Your task to perform on an android device: What time is it in London? Image 0: 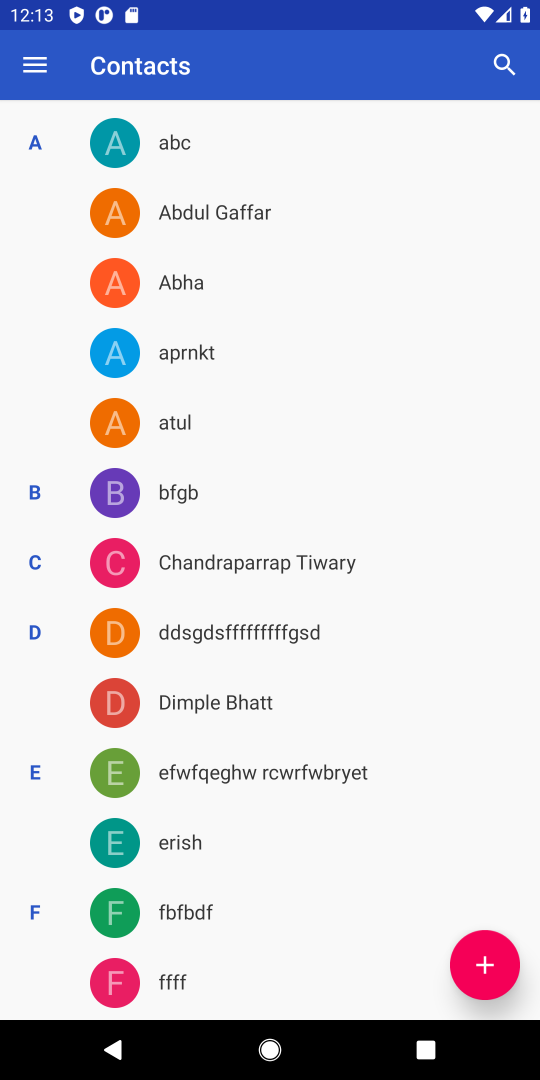
Step 0: press home button
Your task to perform on an android device: What time is it in London? Image 1: 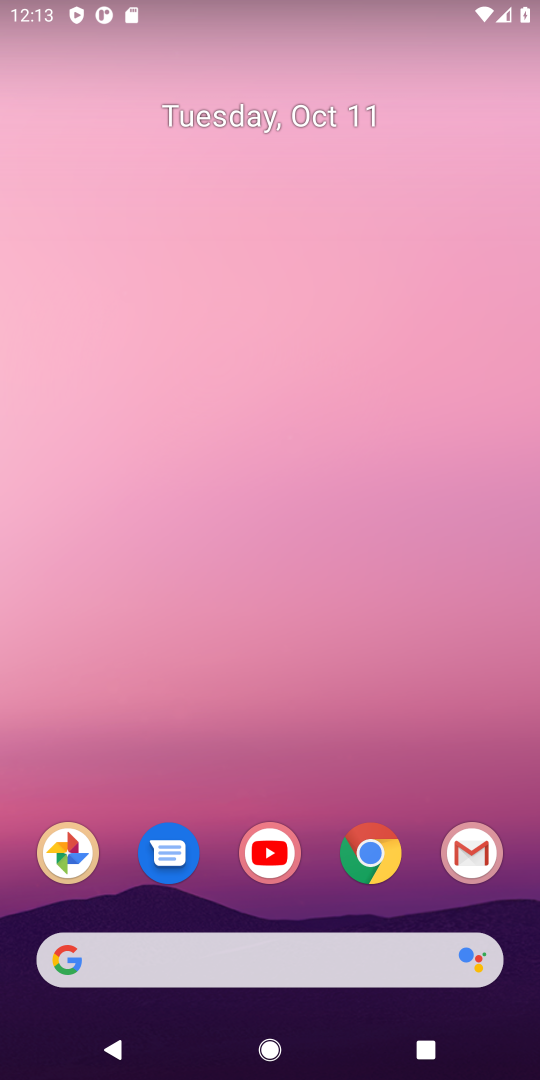
Step 1: drag from (230, 753) to (313, 34)
Your task to perform on an android device: What time is it in London? Image 2: 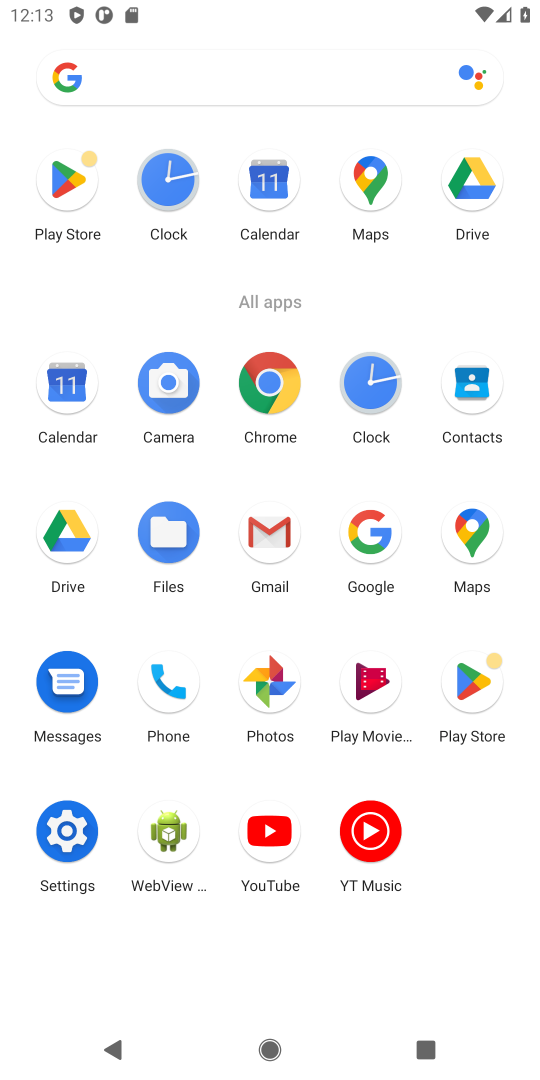
Step 2: click (260, 371)
Your task to perform on an android device: What time is it in London? Image 3: 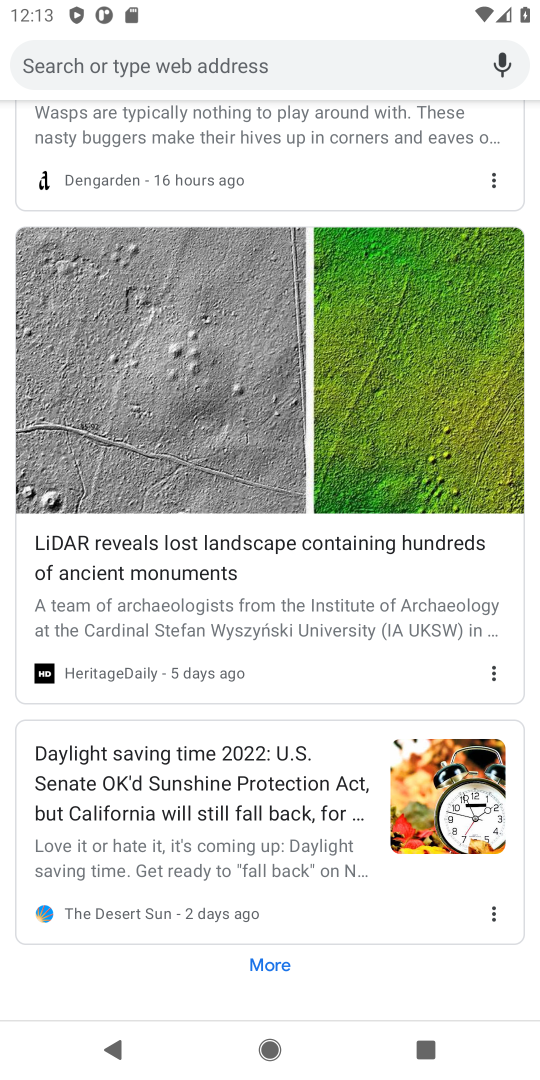
Step 3: click (273, 94)
Your task to perform on an android device: What time is it in London? Image 4: 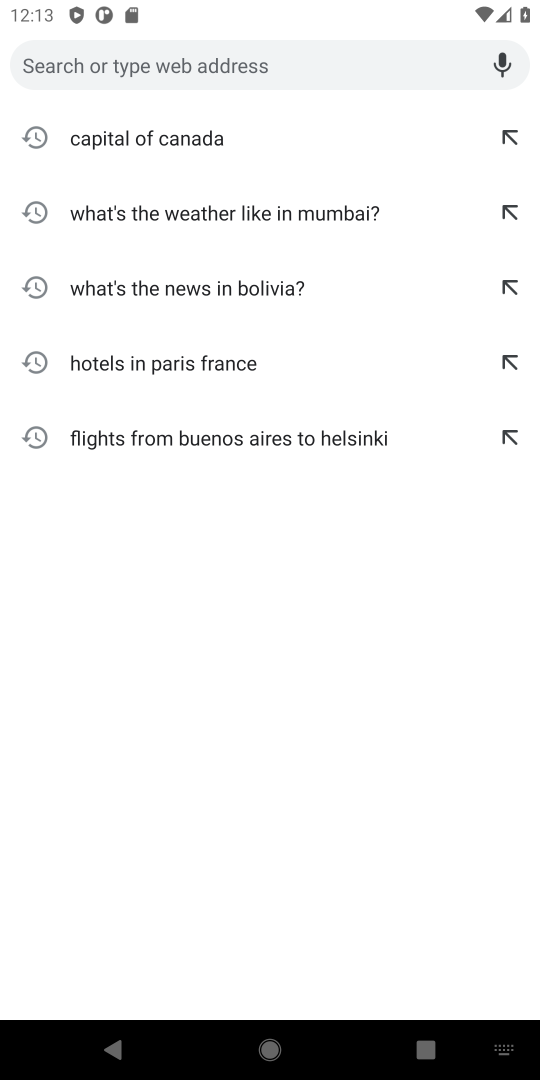
Step 4: type "What time is it in London?"
Your task to perform on an android device: What time is it in London? Image 5: 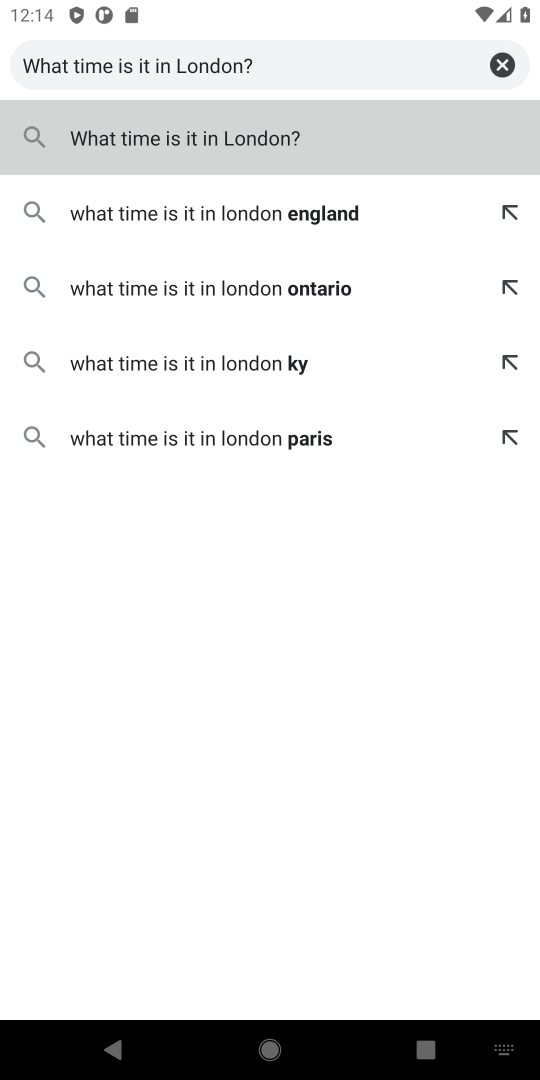
Step 5: press enter
Your task to perform on an android device: What time is it in London? Image 6: 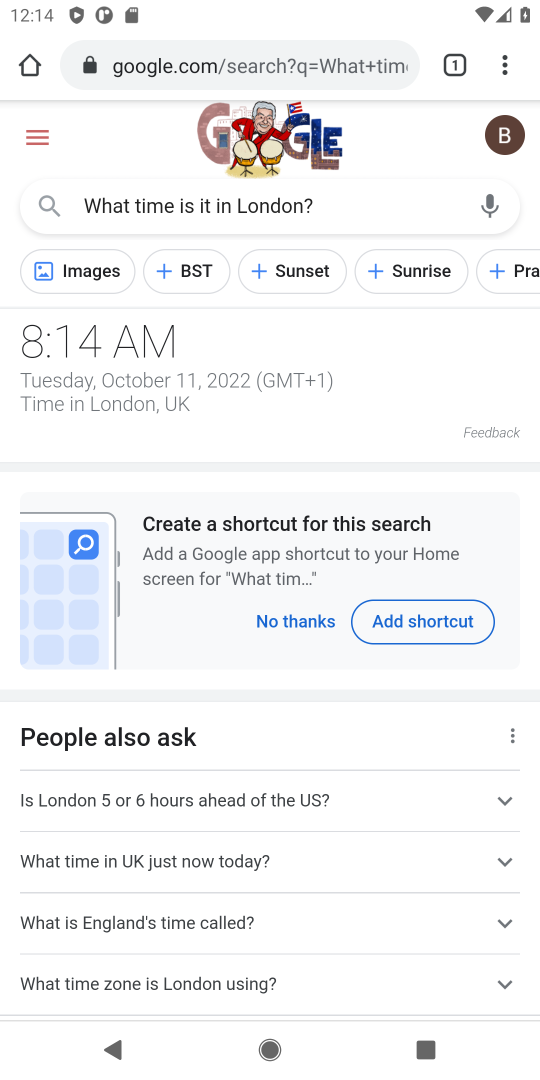
Step 6: click (313, 618)
Your task to perform on an android device: What time is it in London? Image 7: 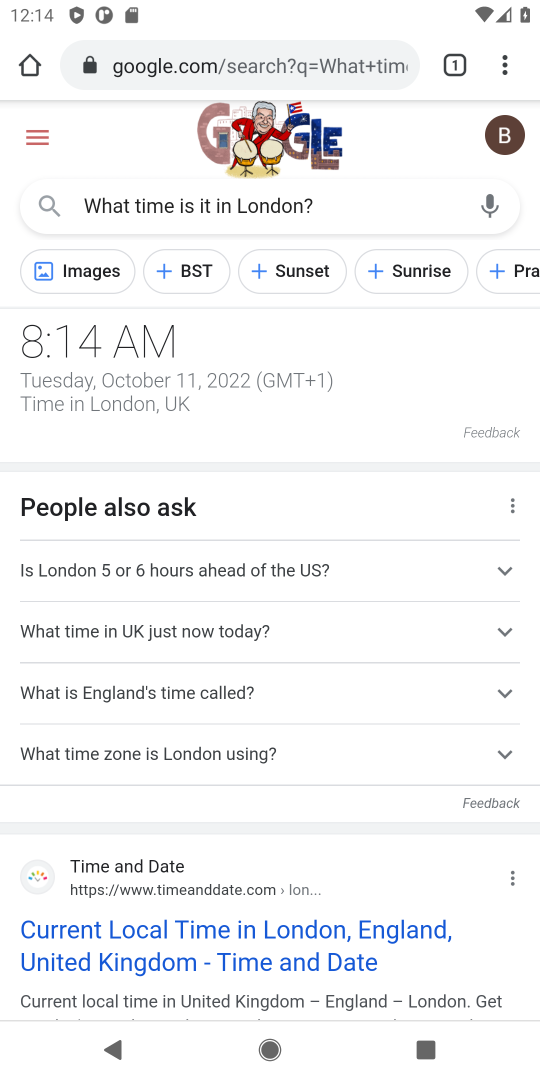
Step 7: drag from (351, 950) to (352, 346)
Your task to perform on an android device: What time is it in London? Image 8: 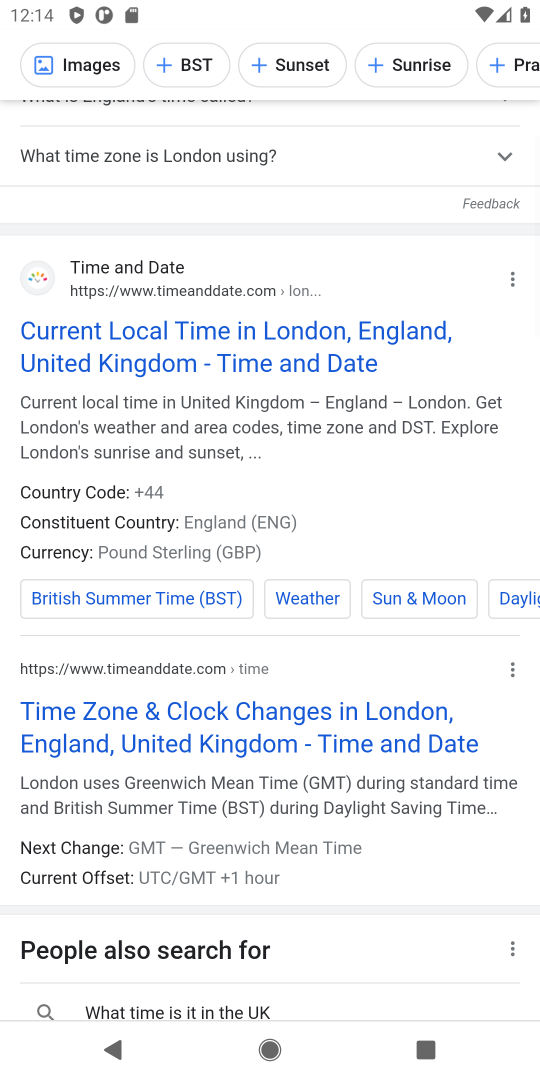
Step 8: click (357, 359)
Your task to perform on an android device: What time is it in London? Image 9: 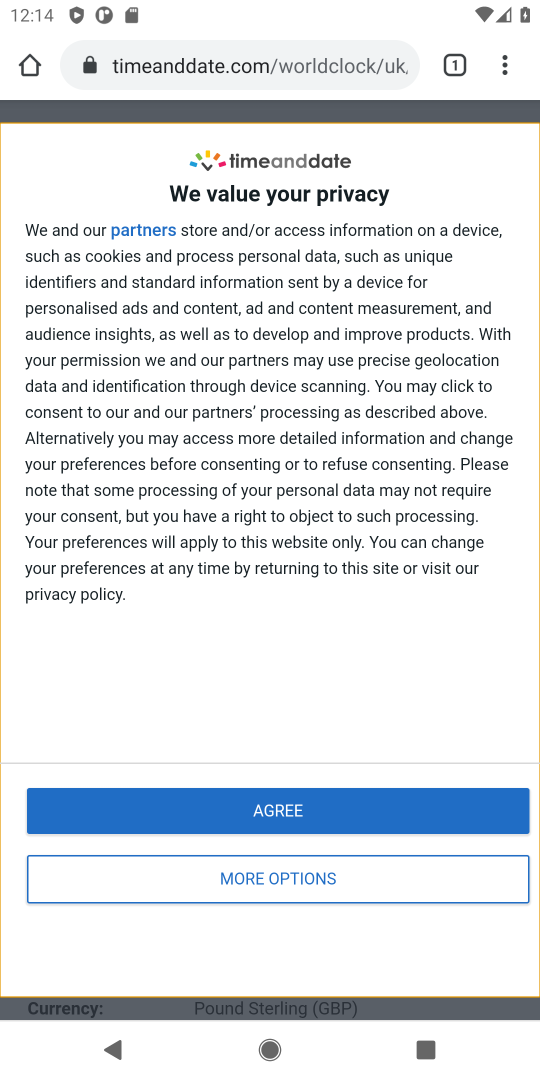
Step 9: click (311, 815)
Your task to perform on an android device: What time is it in London? Image 10: 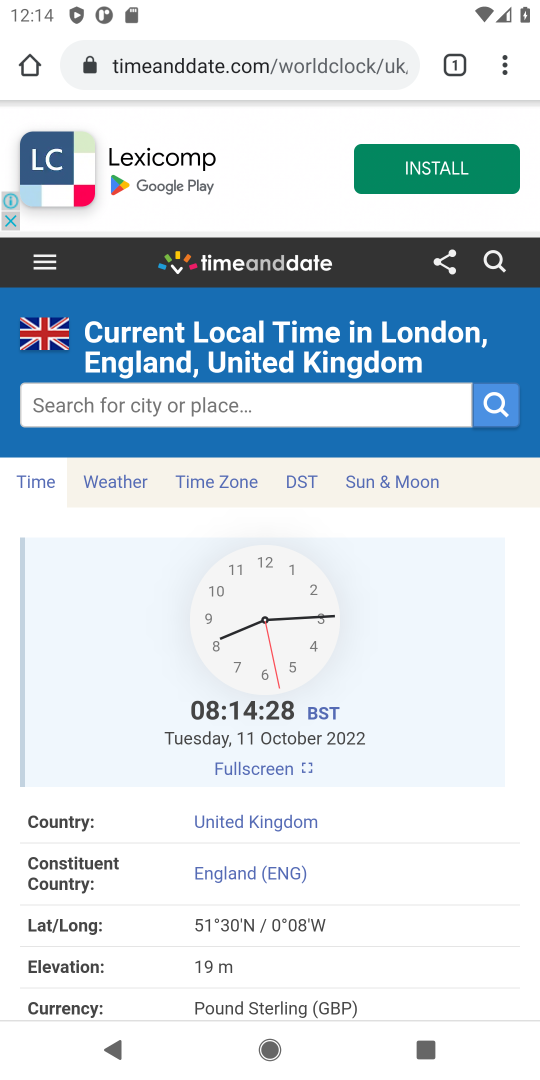
Step 10: drag from (311, 815) to (285, 161)
Your task to perform on an android device: What time is it in London? Image 11: 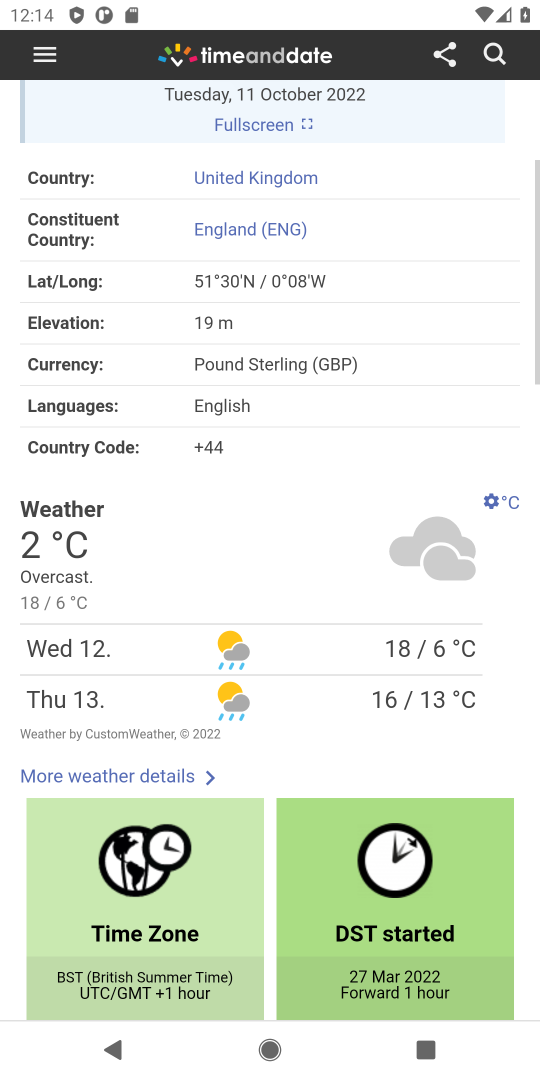
Step 11: drag from (380, 777) to (361, 196)
Your task to perform on an android device: What time is it in London? Image 12: 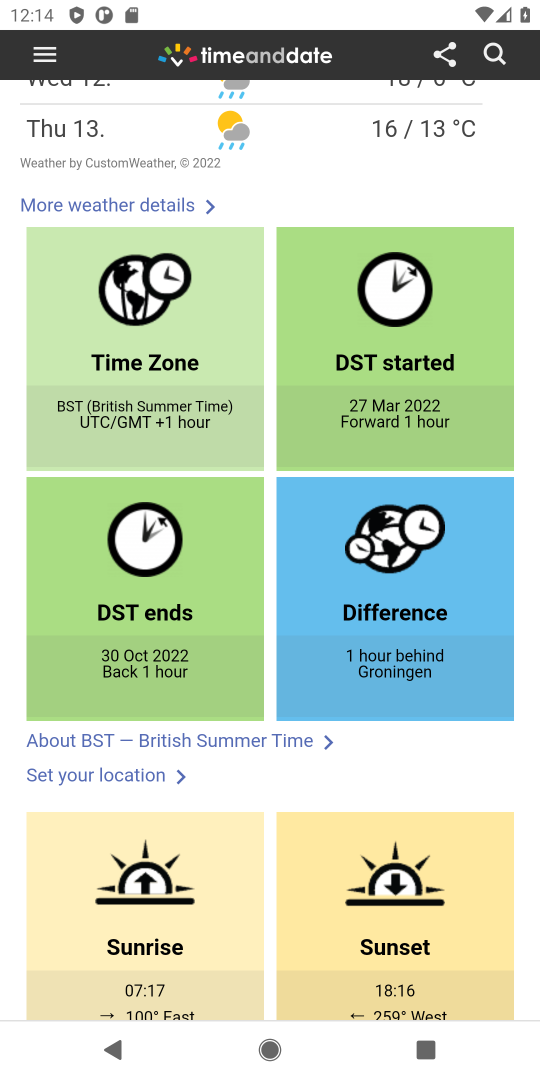
Step 12: drag from (362, 798) to (270, 89)
Your task to perform on an android device: What time is it in London? Image 13: 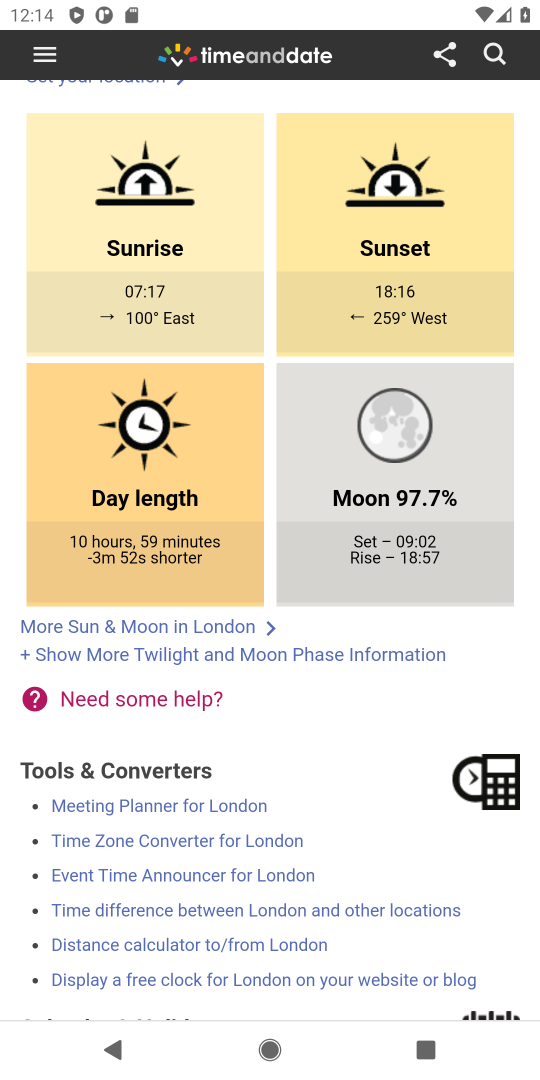
Step 13: drag from (310, 789) to (307, 134)
Your task to perform on an android device: What time is it in London? Image 14: 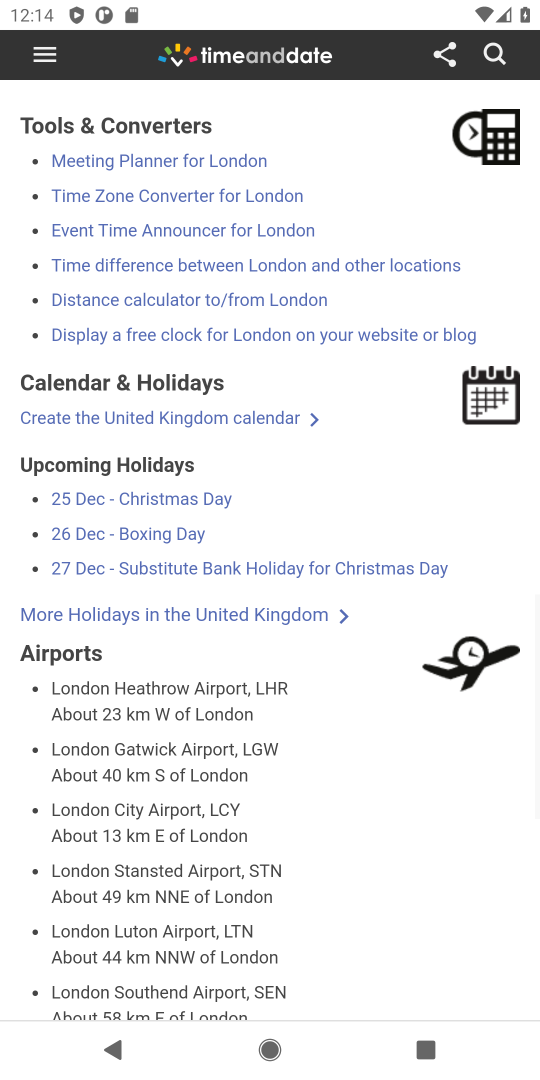
Step 14: drag from (341, 931) to (276, 213)
Your task to perform on an android device: What time is it in London? Image 15: 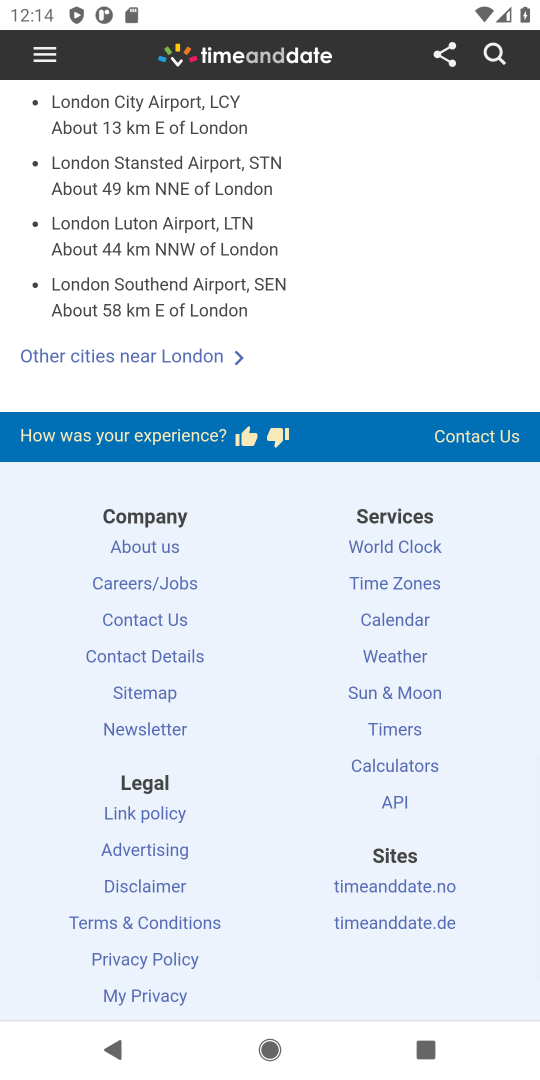
Step 15: drag from (363, 960) to (344, 147)
Your task to perform on an android device: What time is it in London? Image 16: 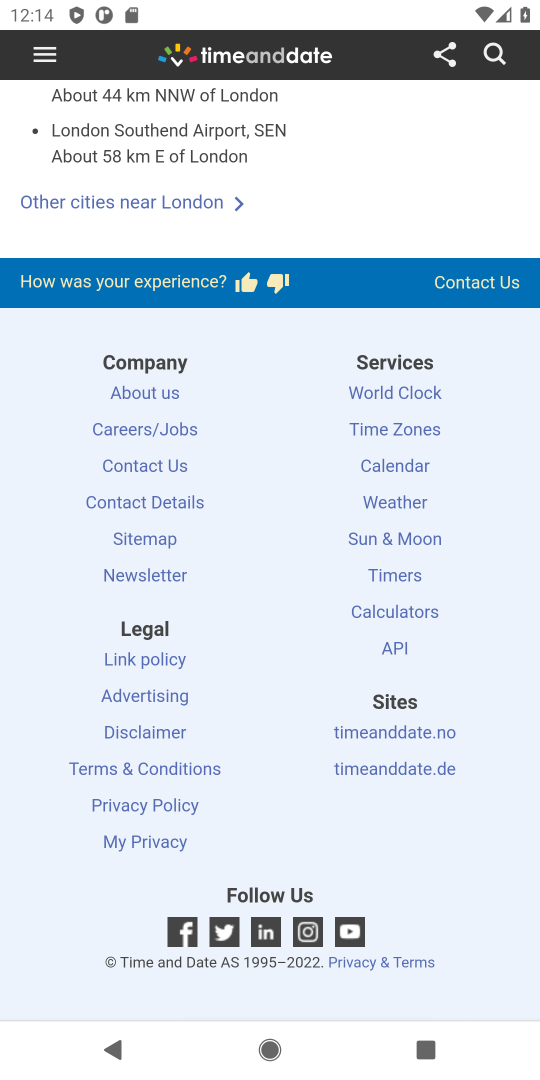
Step 16: drag from (347, 983) to (273, 271)
Your task to perform on an android device: What time is it in London? Image 17: 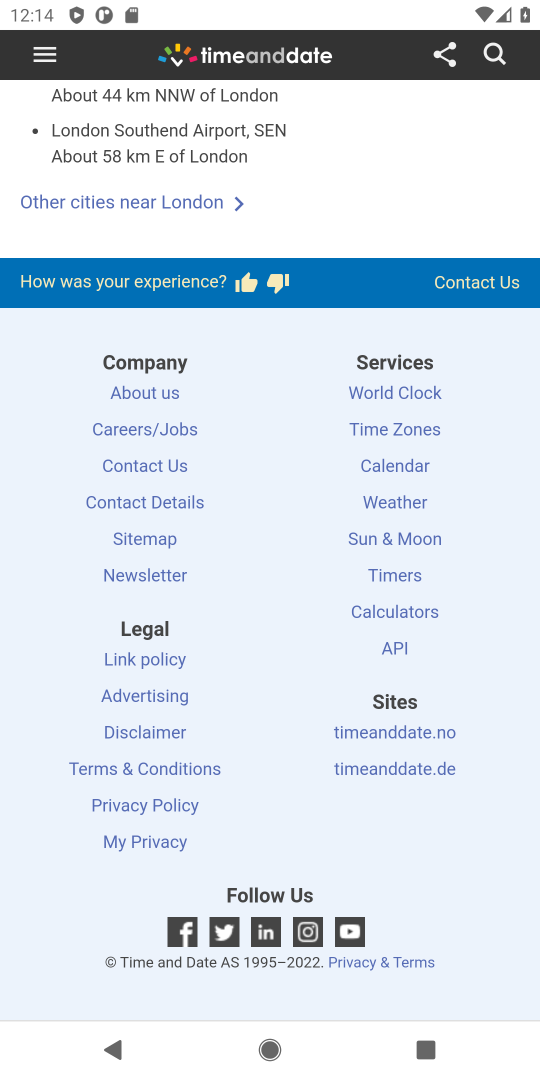
Step 17: drag from (273, 271) to (276, 339)
Your task to perform on an android device: What time is it in London? Image 18: 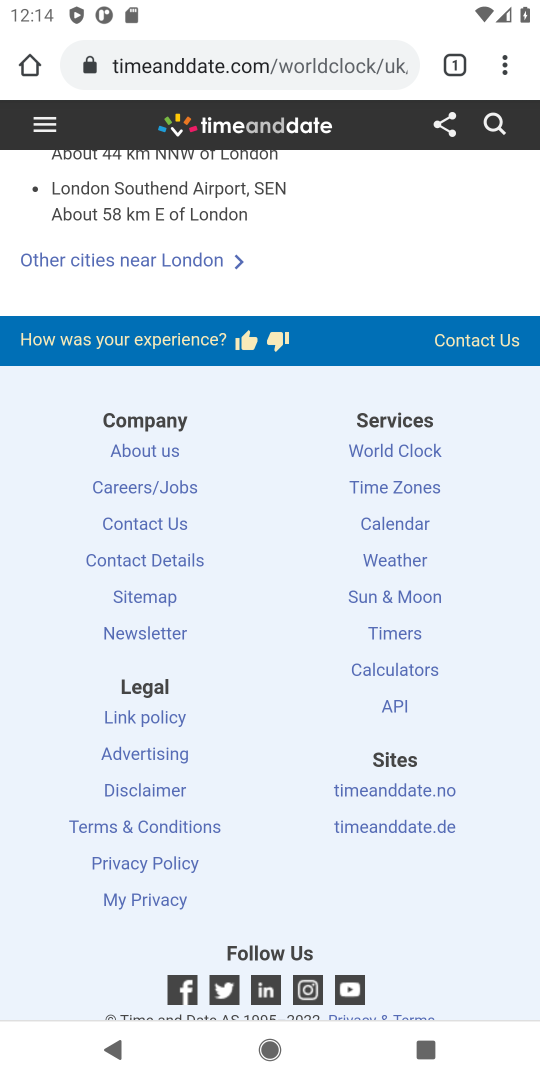
Step 18: drag from (279, 233) to (205, 897)
Your task to perform on an android device: What time is it in London? Image 19: 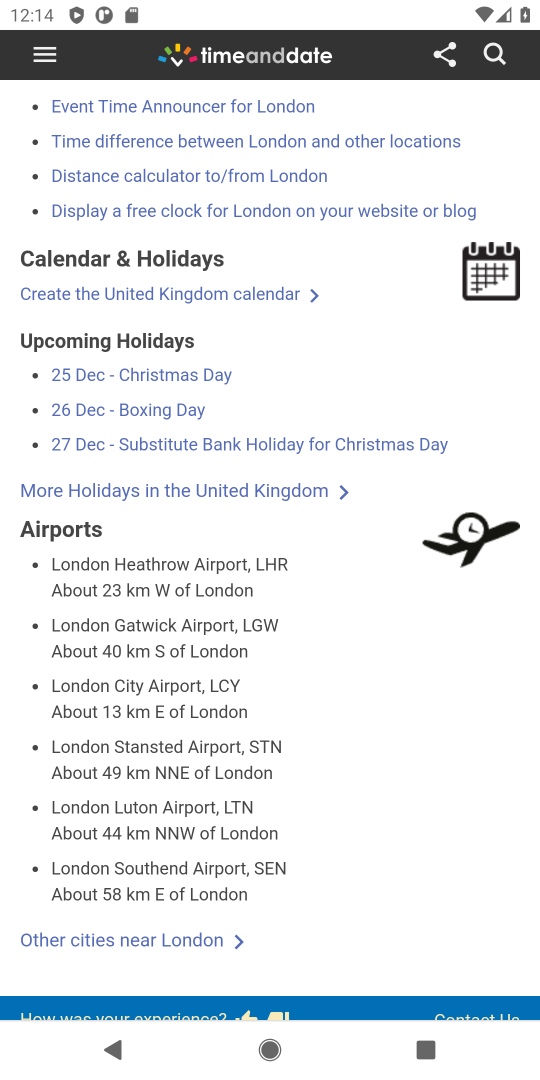
Step 19: drag from (219, 137) to (264, 899)
Your task to perform on an android device: What time is it in London? Image 20: 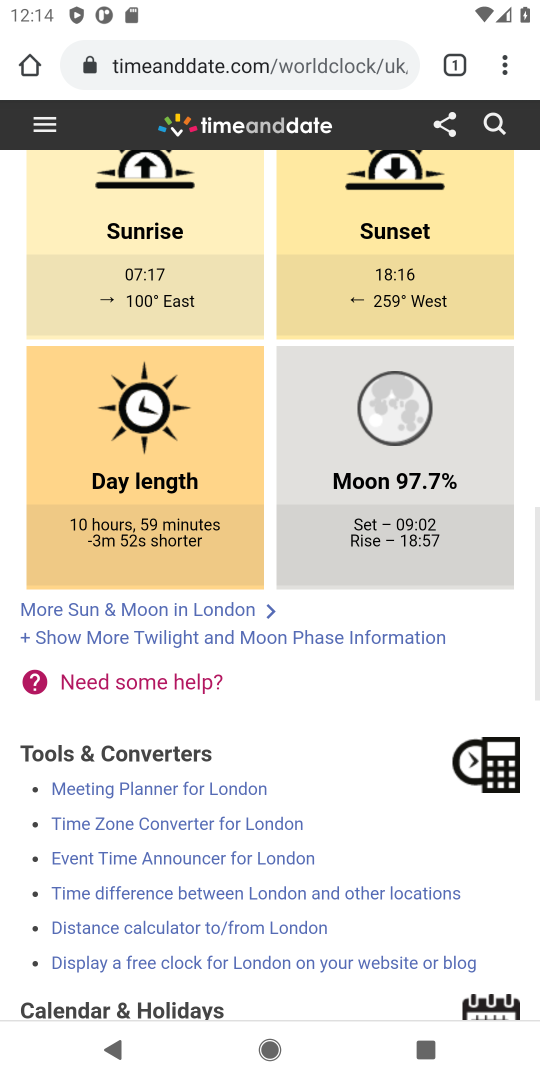
Step 20: drag from (187, 228) to (258, 895)
Your task to perform on an android device: What time is it in London? Image 21: 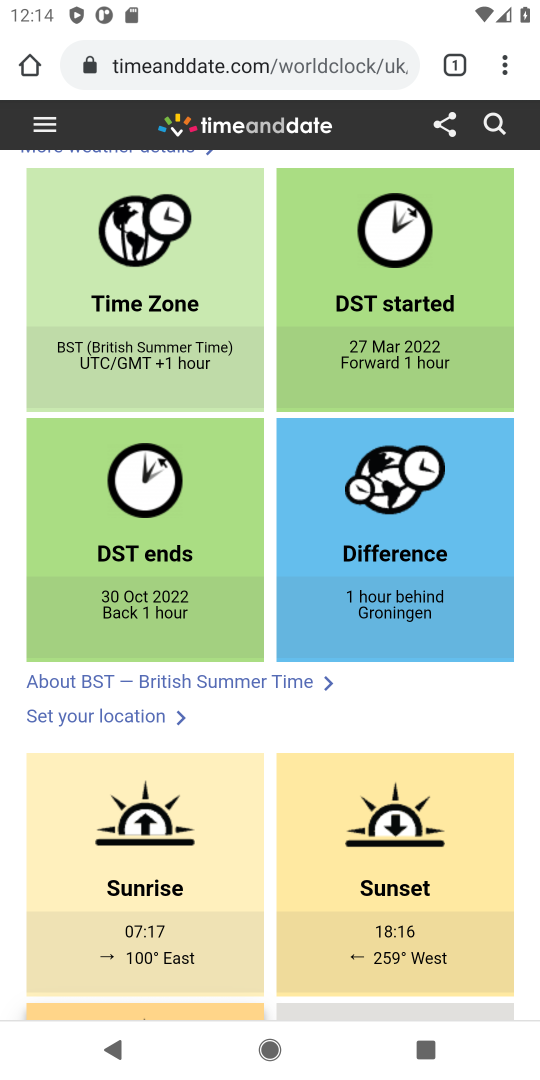
Step 21: drag from (262, 210) to (346, 882)
Your task to perform on an android device: What time is it in London? Image 22: 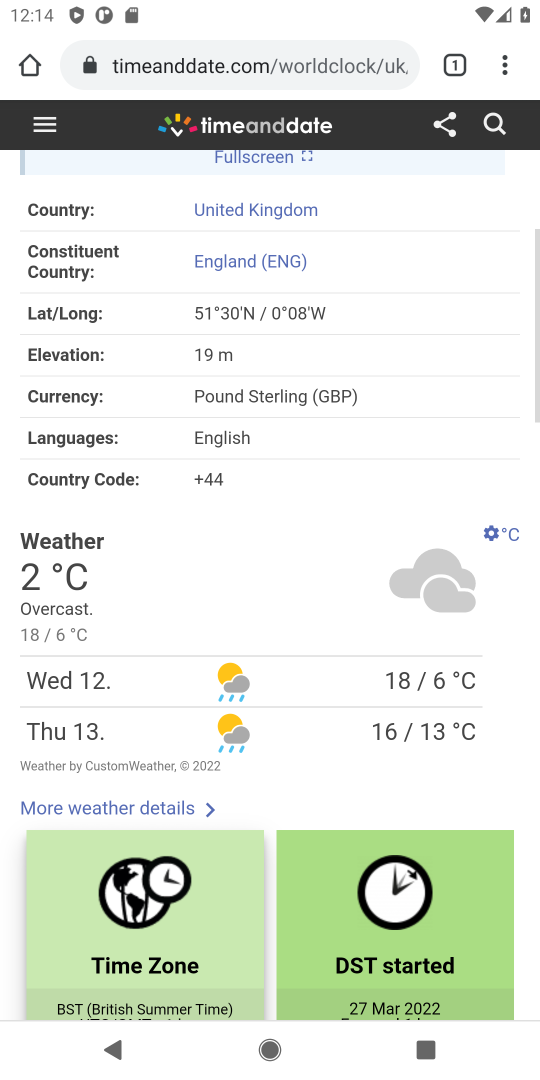
Step 22: drag from (242, 311) to (291, 1012)
Your task to perform on an android device: What time is it in London? Image 23: 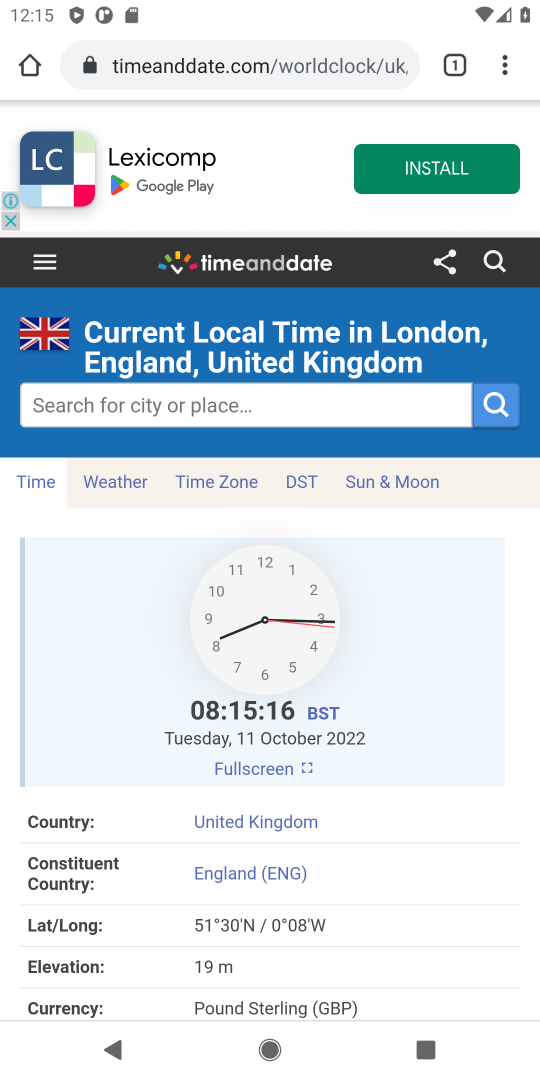
Step 23: drag from (252, 560) to (298, 896)
Your task to perform on an android device: What time is it in London? Image 24: 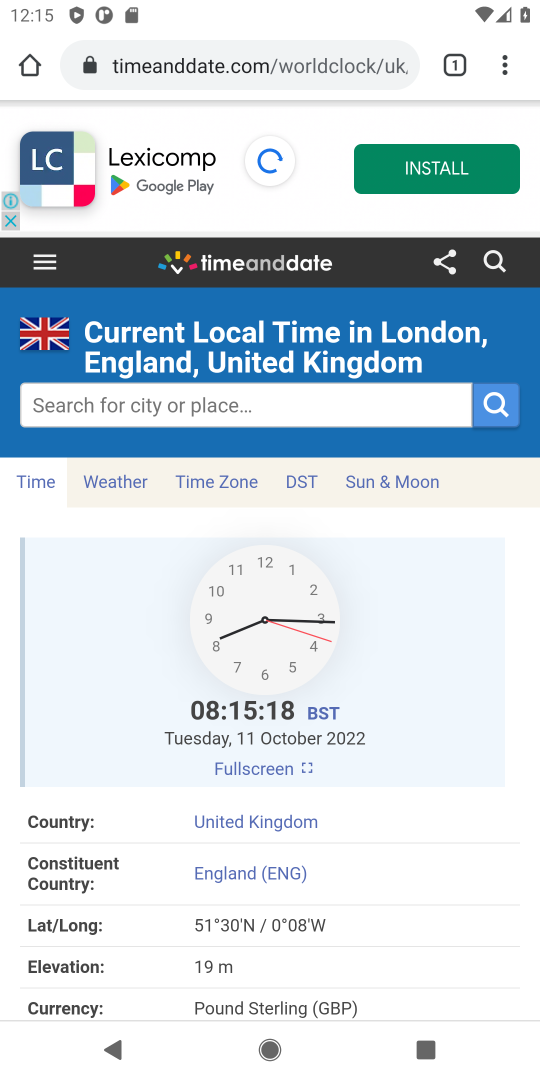
Step 24: drag from (318, 925) to (323, 172)
Your task to perform on an android device: What time is it in London? Image 25: 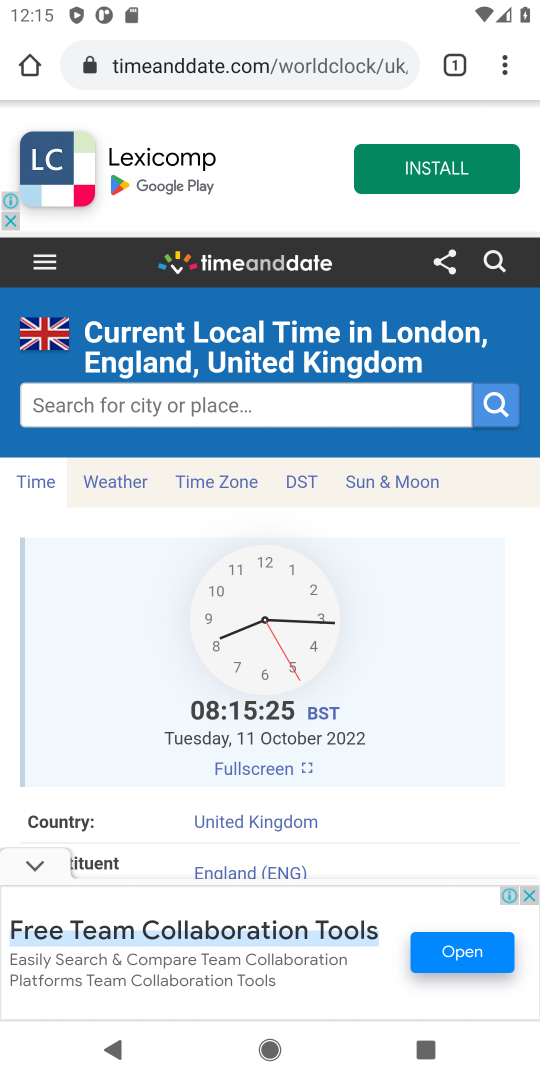
Step 25: press back button
Your task to perform on an android device: What time is it in London? Image 26: 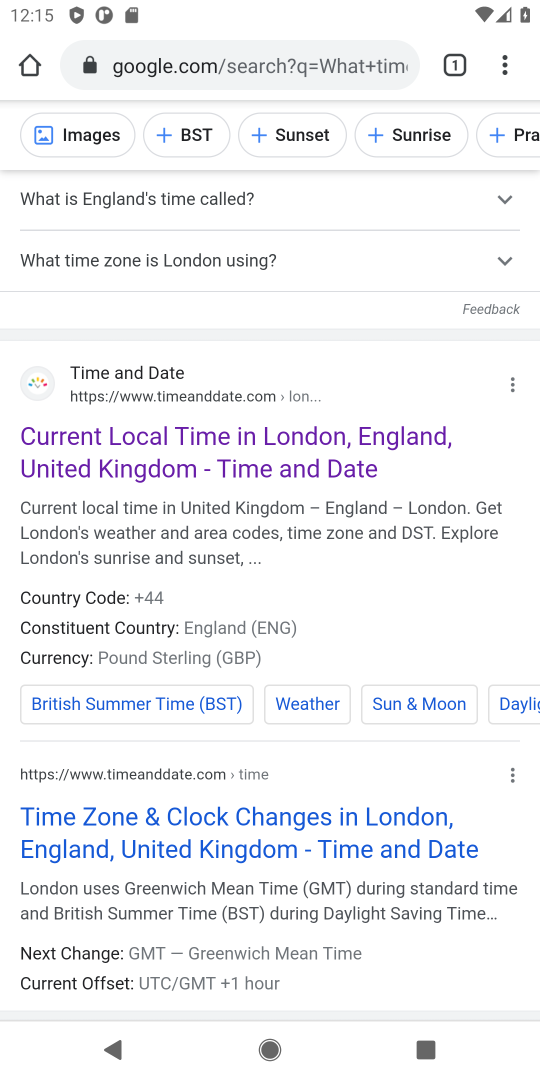
Step 26: click (332, 833)
Your task to perform on an android device: What time is it in London? Image 27: 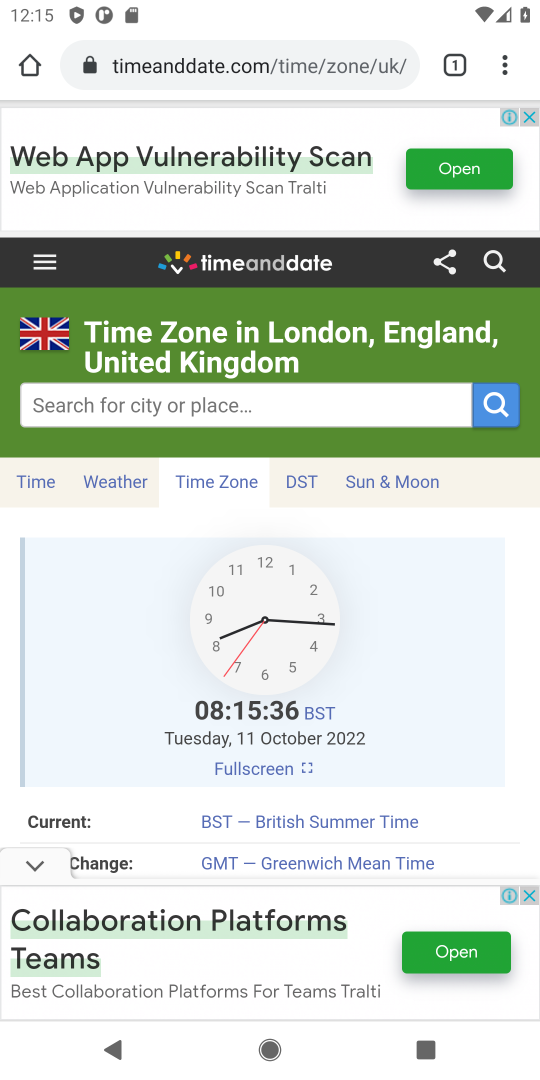
Step 27: drag from (295, 635) to (285, 491)
Your task to perform on an android device: What time is it in London? Image 28: 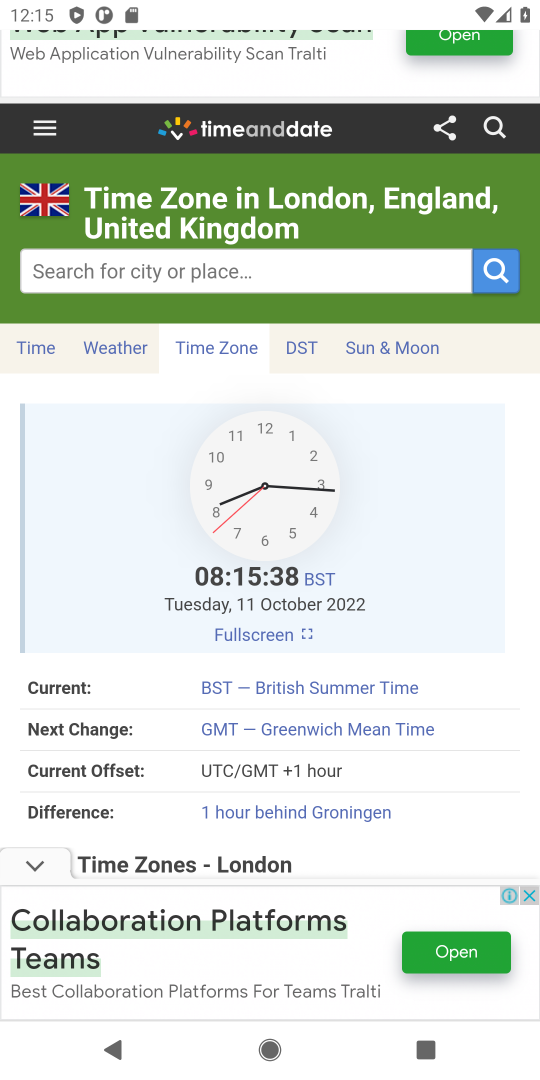
Step 28: drag from (275, 759) to (313, 373)
Your task to perform on an android device: What time is it in London? Image 29: 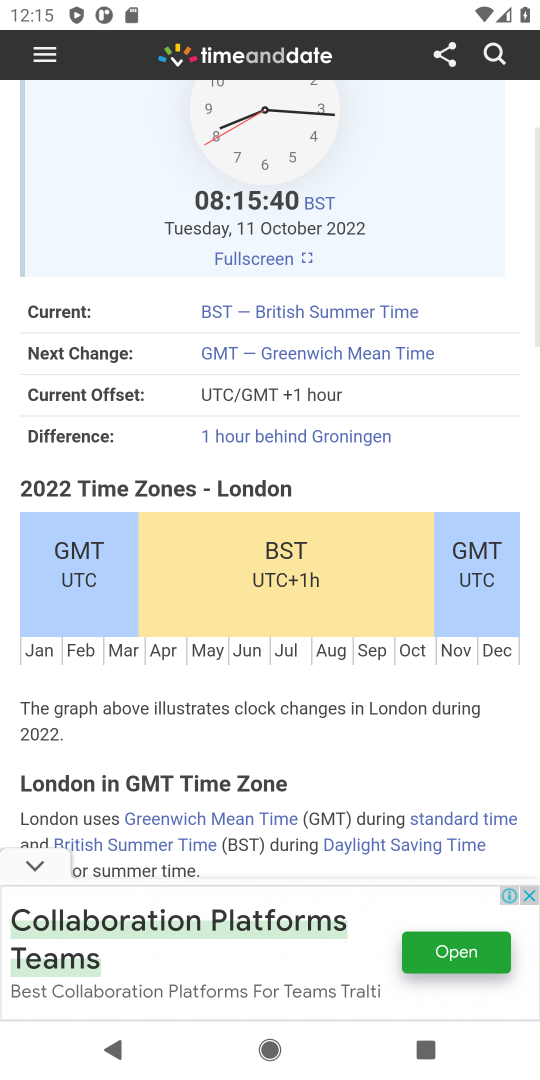
Step 29: drag from (296, 810) to (287, 91)
Your task to perform on an android device: What time is it in London? Image 30: 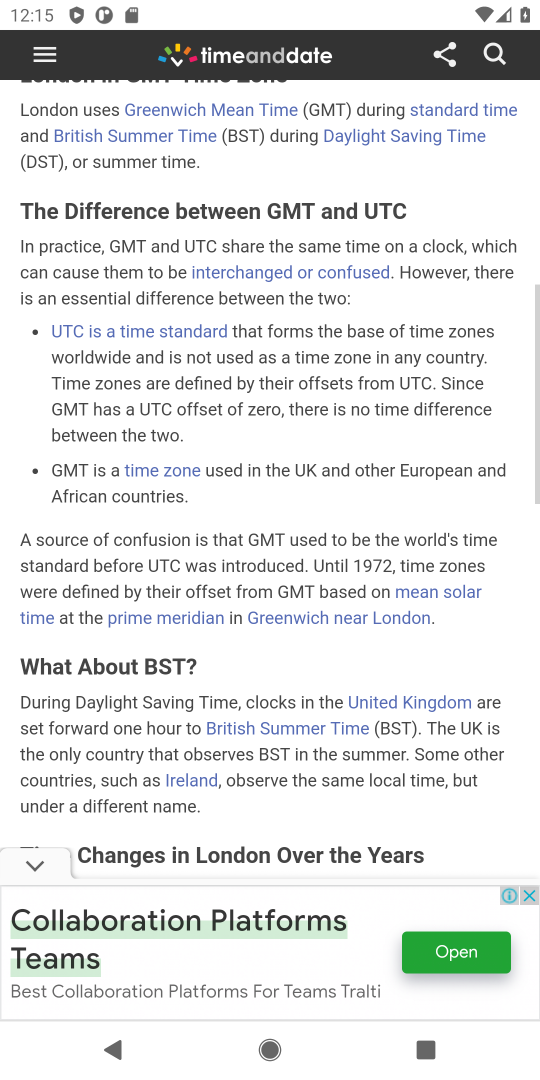
Step 30: drag from (264, 632) to (273, 166)
Your task to perform on an android device: What time is it in London? Image 31: 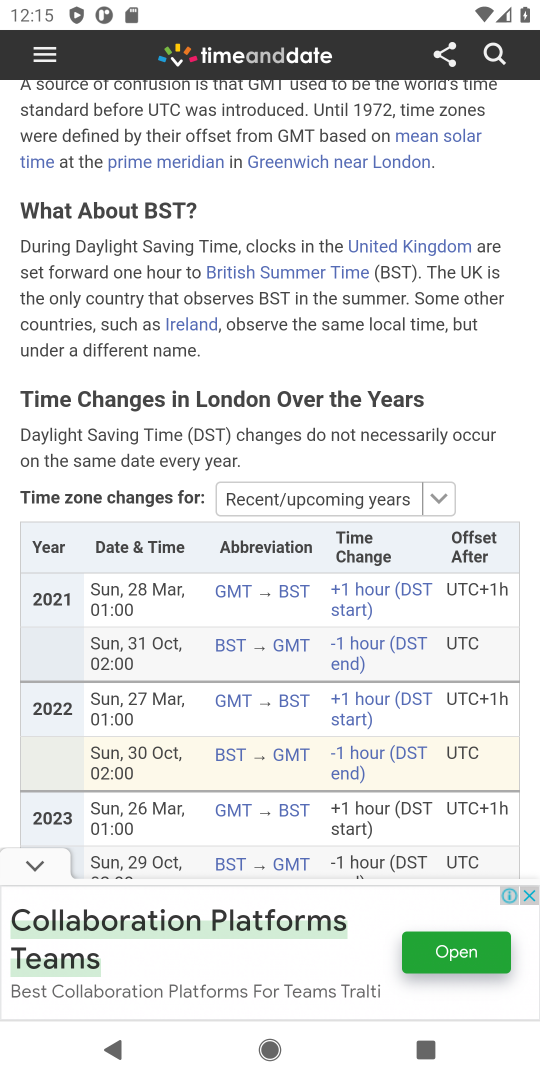
Step 31: drag from (280, 750) to (363, 93)
Your task to perform on an android device: What time is it in London? Image 32: 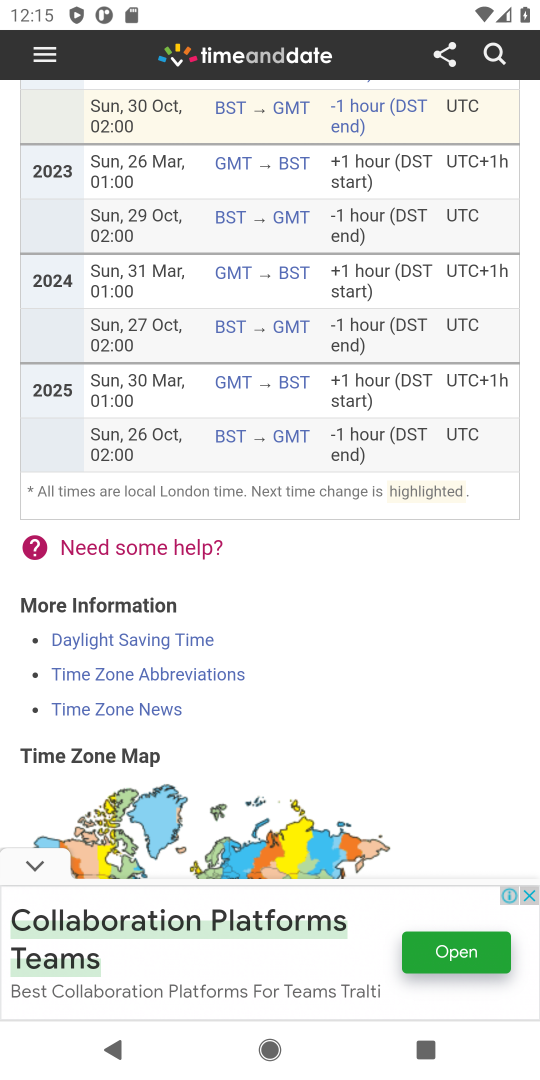
Step 32: drag from (194, 222) to (311, 7)
Your task to perform on an android device: What time is it in London? Image 33: 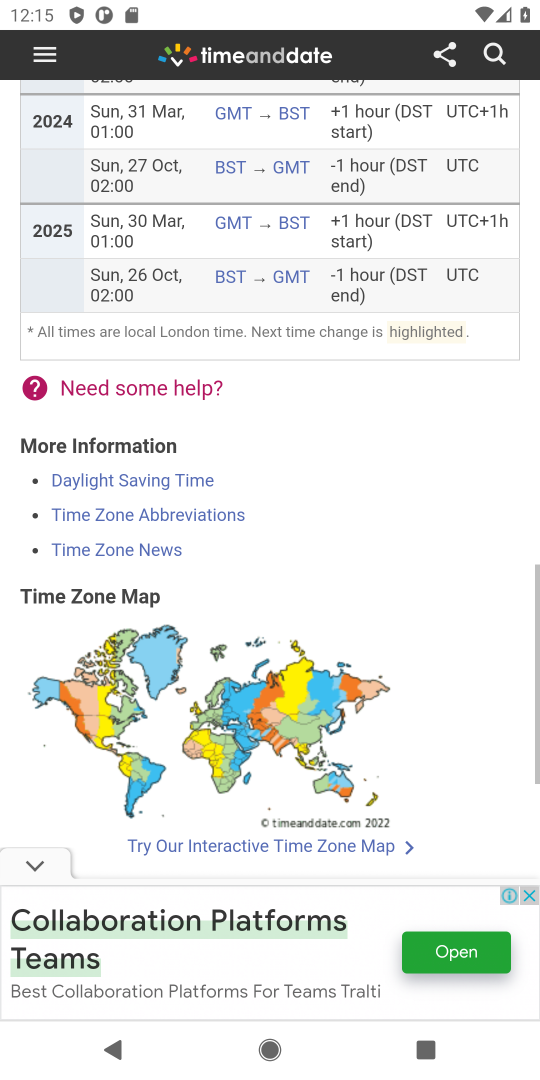
Step 33: drag from (164, 513) to (241, 172)
Your task to perform on an android device: What time is it in London? Image 34: 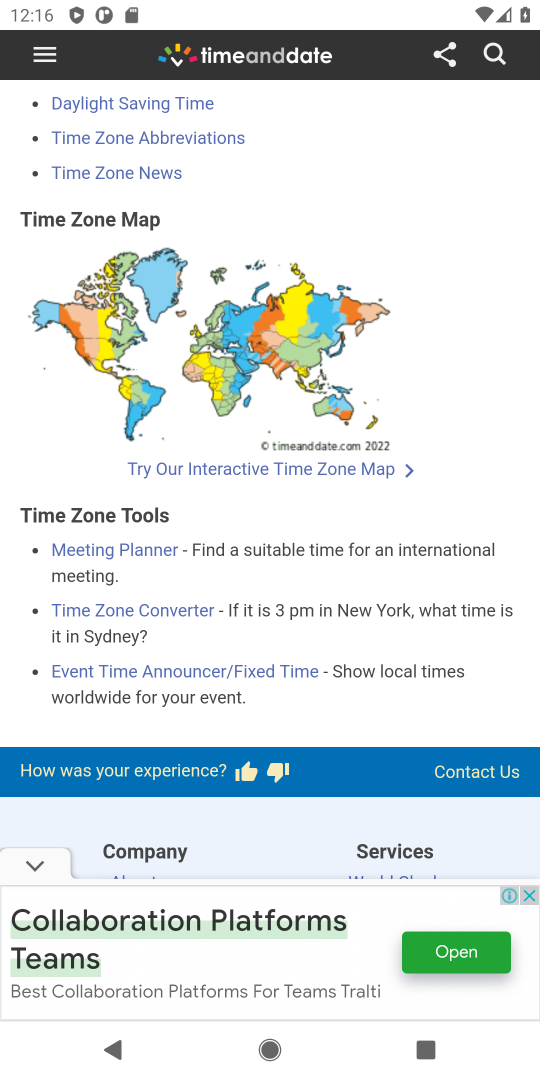
Step 34: drag from (327, 753) to (331, 293)
Your task to perform on an android device: What time is it in London? Image 35: 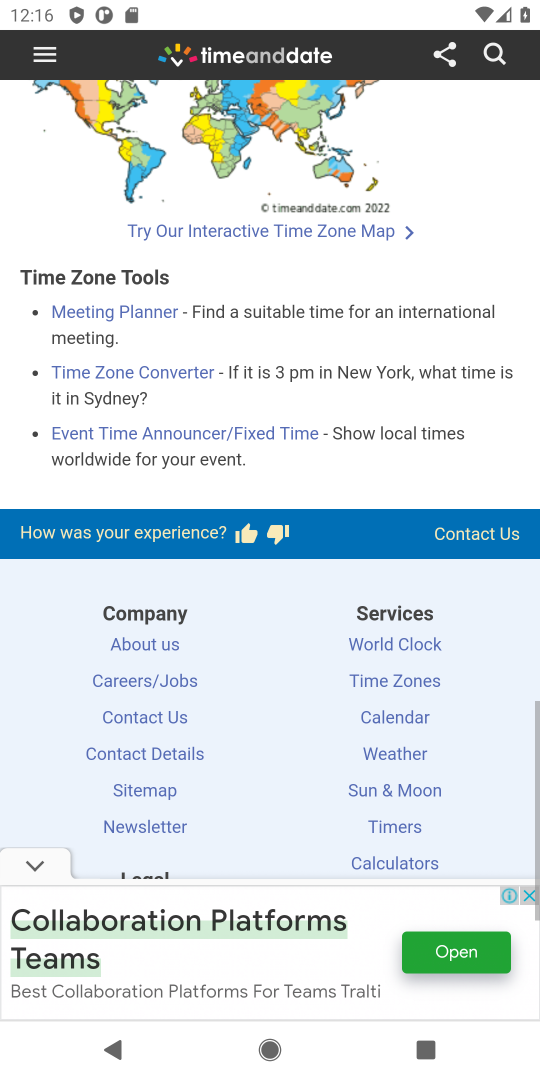
Step 35: click (313, 217)
Your task to perform on an android device: What time is it in London? Image 36: 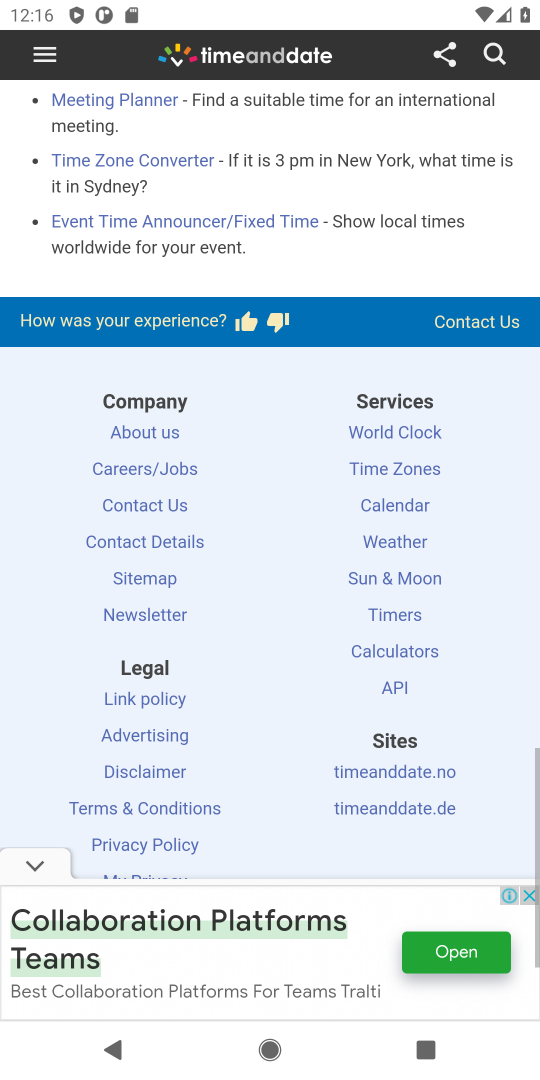
Step 36: task complete